Your task to perform on an android device: toggle airplane mode Image 0: 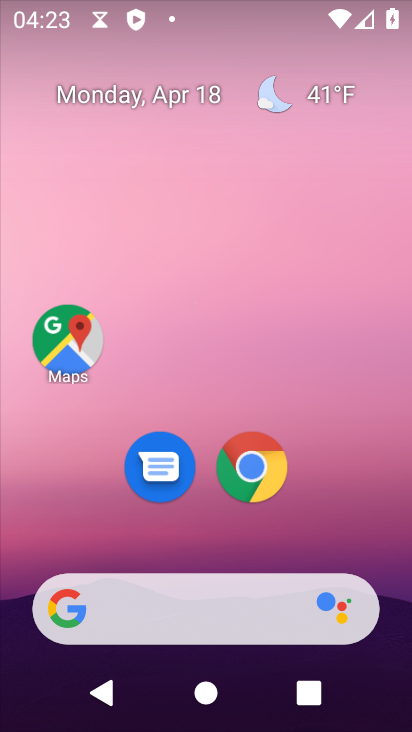
Step 0: drag from (217, 527) to (231, 131)
Your task to perform on an android device: toggle airplane mode Image 1: 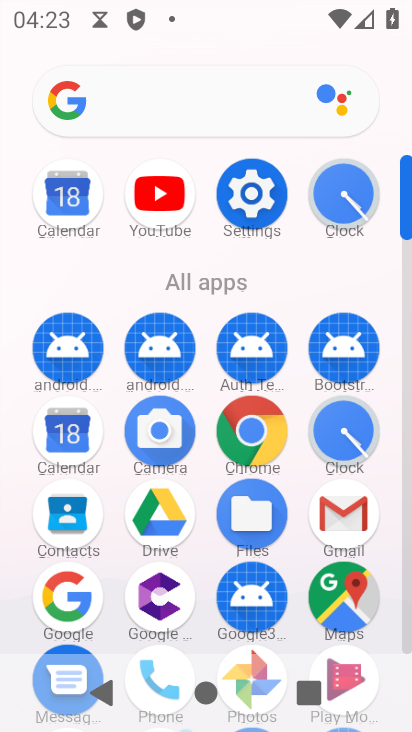
Step 1: click (243, 202)
Your task to perform on an android device: toggle airplane mode Image 2: 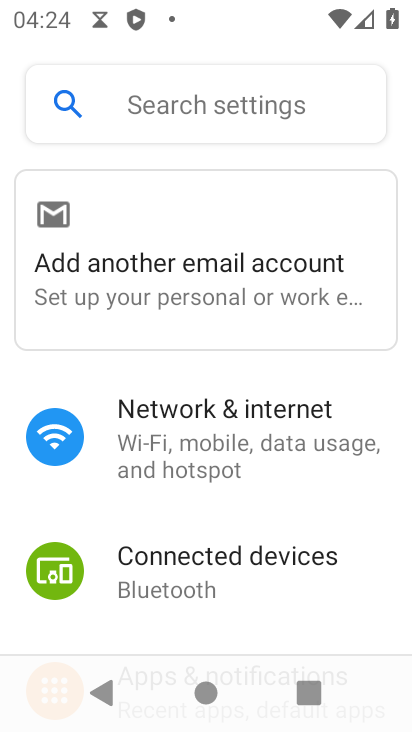
Step 2: click (227, 446)
Your task to perform on an android device: toggle airplane mode Image 3: 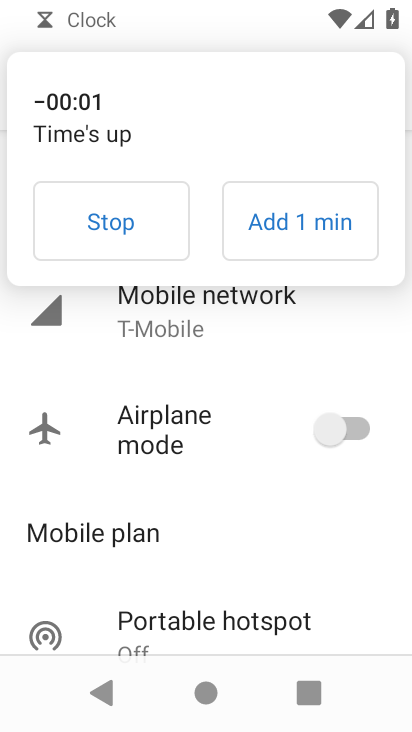
Step 3: click (348, 420)
Your task to perform on an android device: toggle airplane mode Image 4: 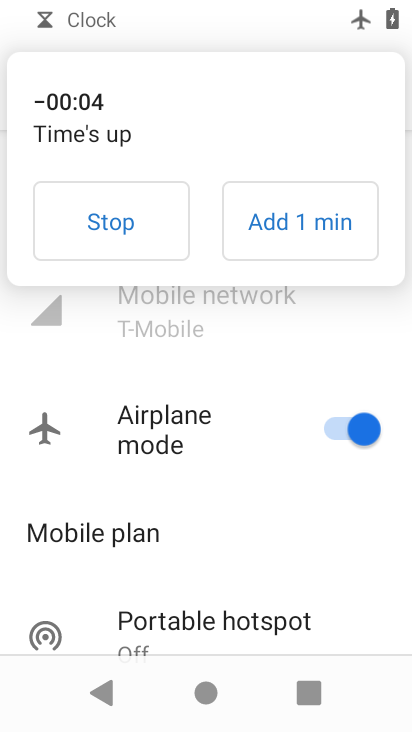
Step 4: task complete